Your task to perform on an android device: turn on the 24-hour format for clock Image 0: 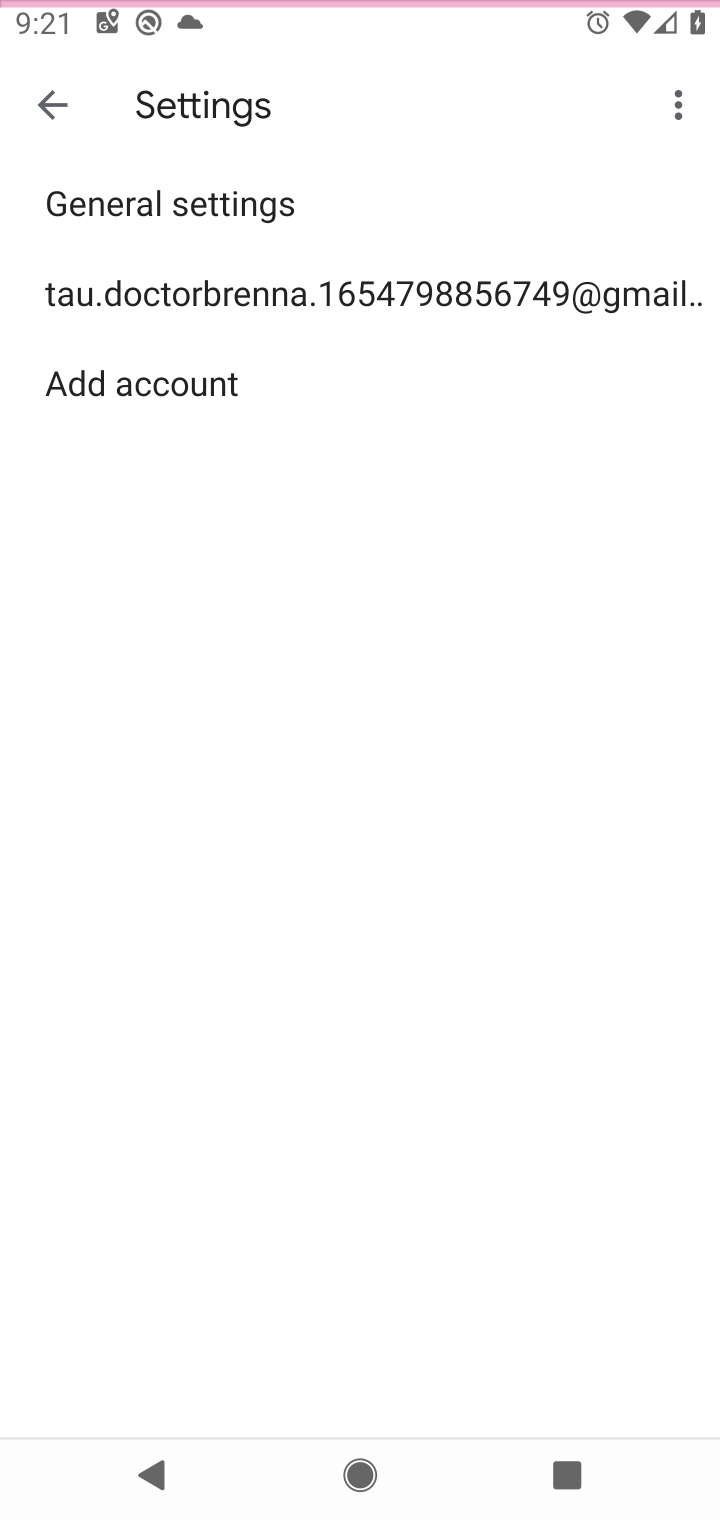
Step 0: drag from (66, 1465) to (259, 759)
Your task to perform on an android device: turn on the 24-hour format for clock Image 1: 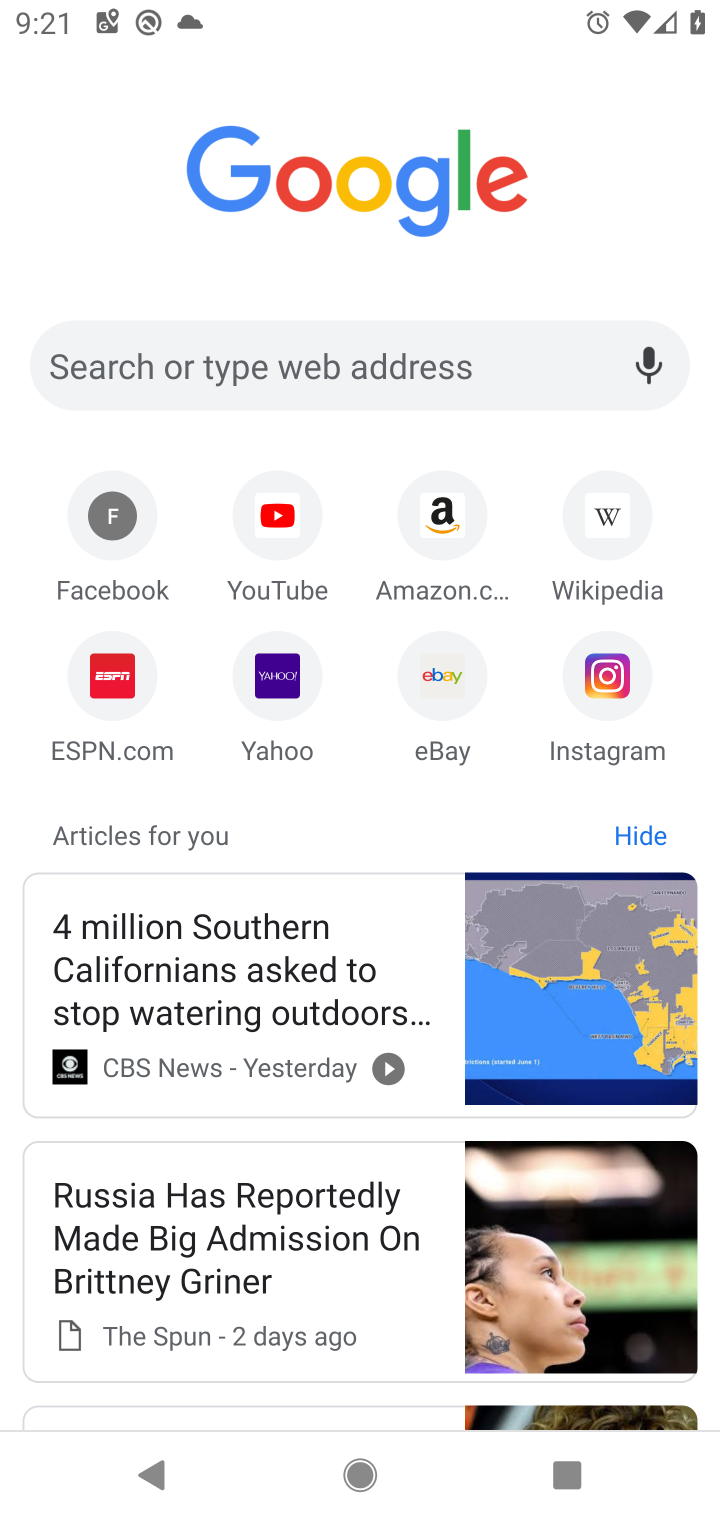
Step 1: press home button
Your task to perform on an android device: turn on the 24-hour format for clock Image 2: 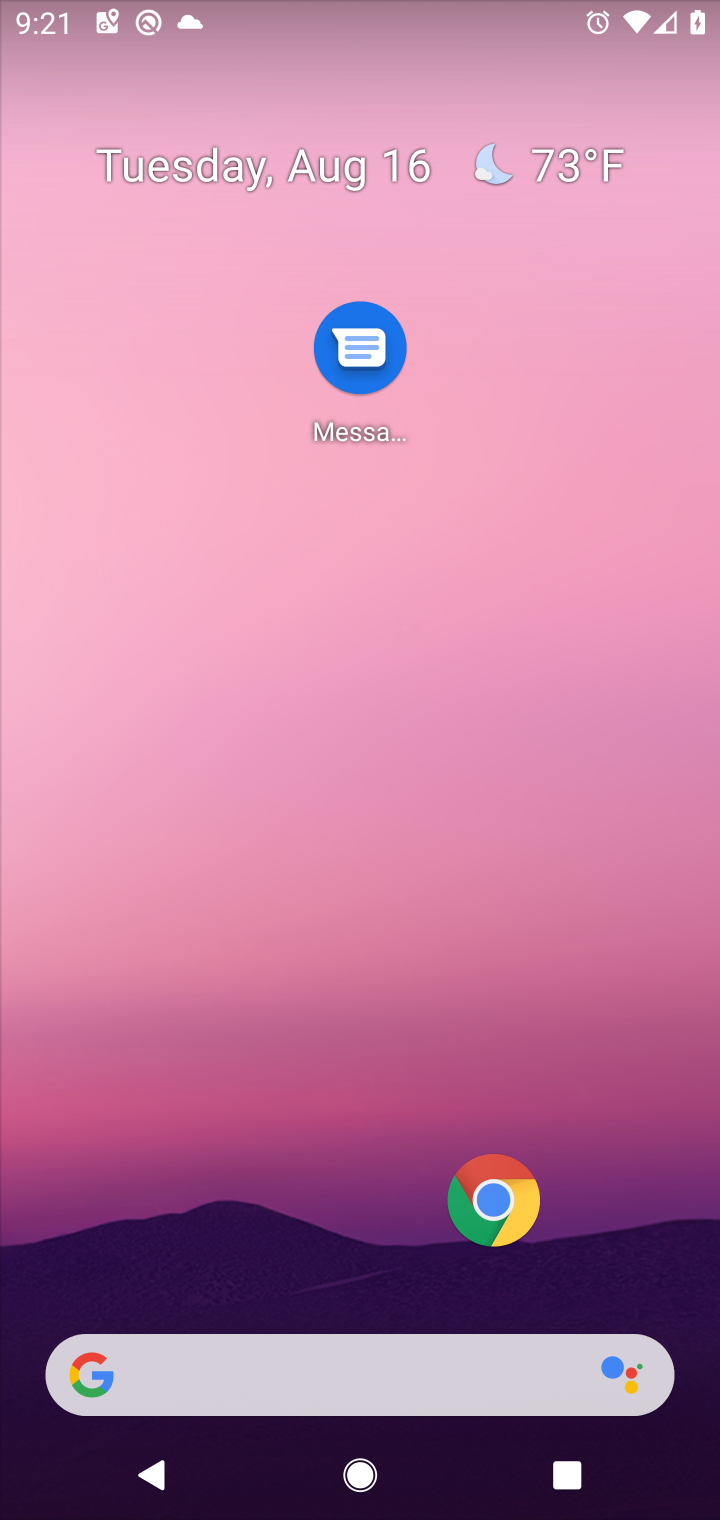
Step 2: drag from (79, 1422) to (456, 149)
Your task to perform on an android device: turn on the 24-hour format for clock Image 3: 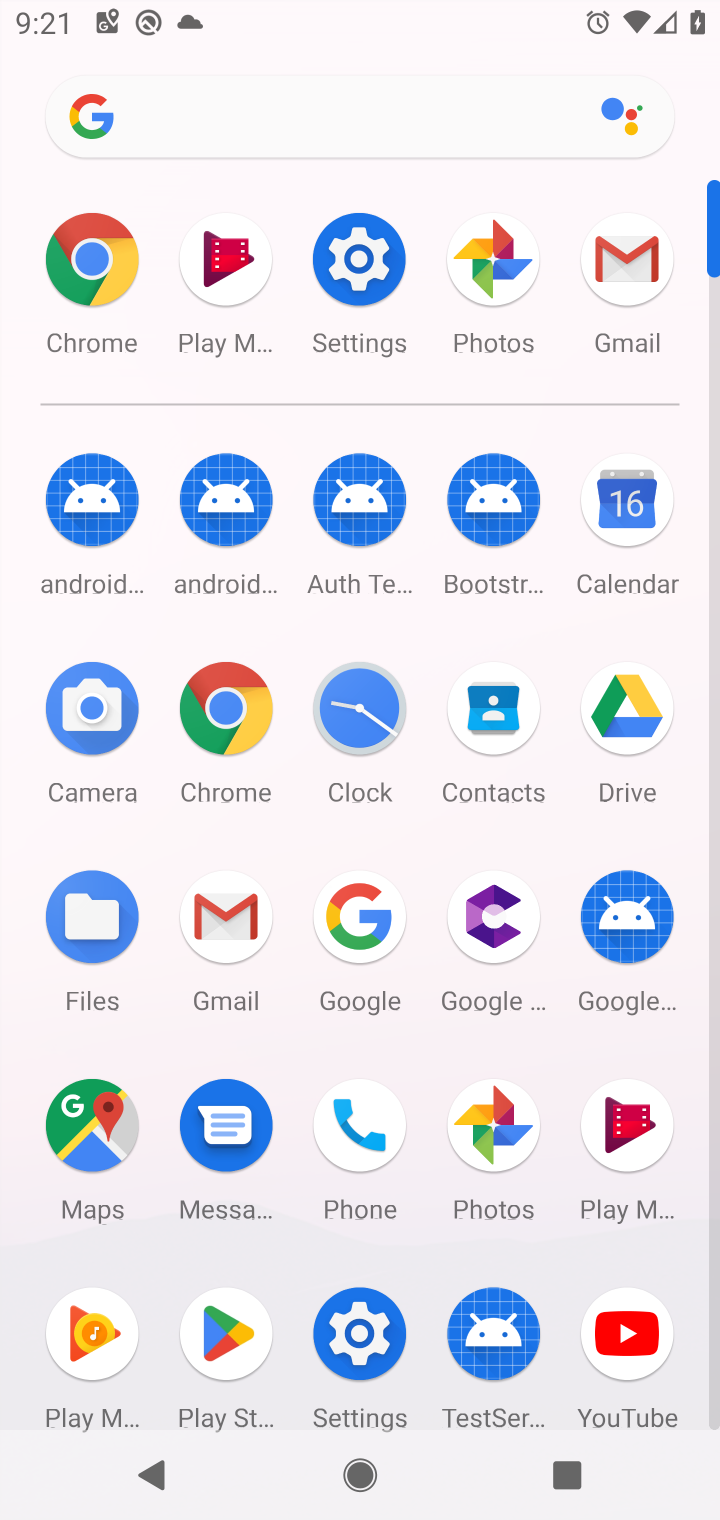
Step 3: click (381, 736)
Your task to perform on an android device: turn on the 24-hour format for clock Image 4: 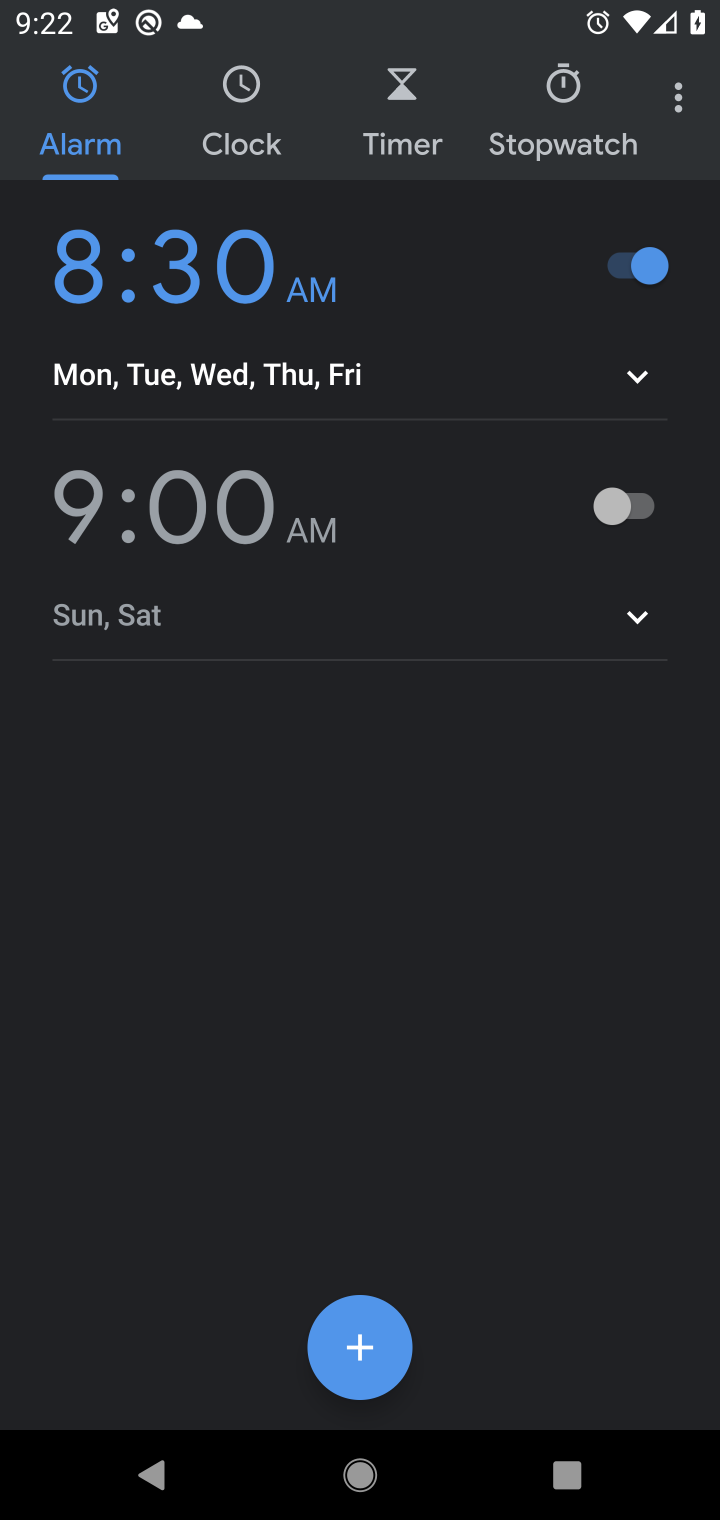
Step 4: click (688, 106)
Your task to perform on an android device: turn on the 24-hour format for clock Image 5: 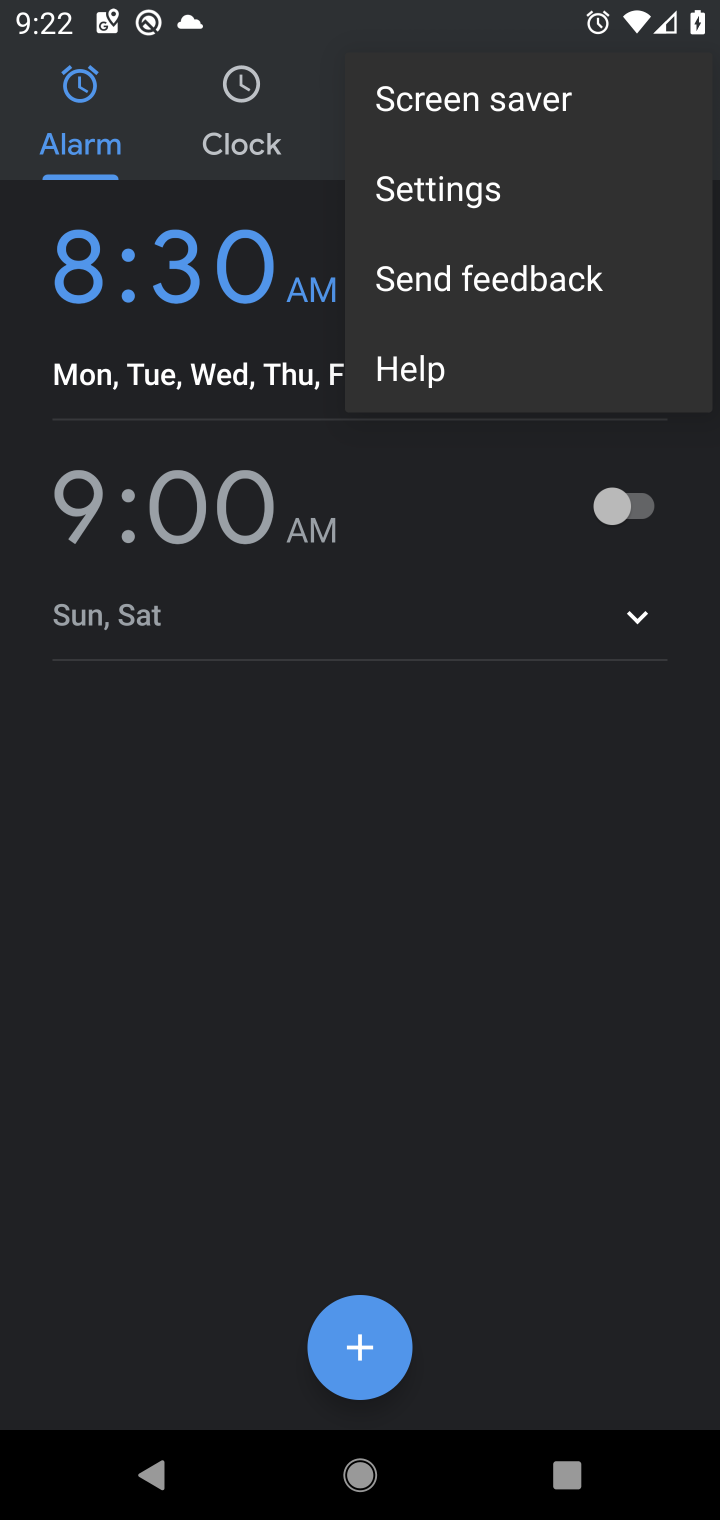
Step 5: click (423, 194)
Your task to perform on an android device: turn on the 24-hour format for clock Image 6: 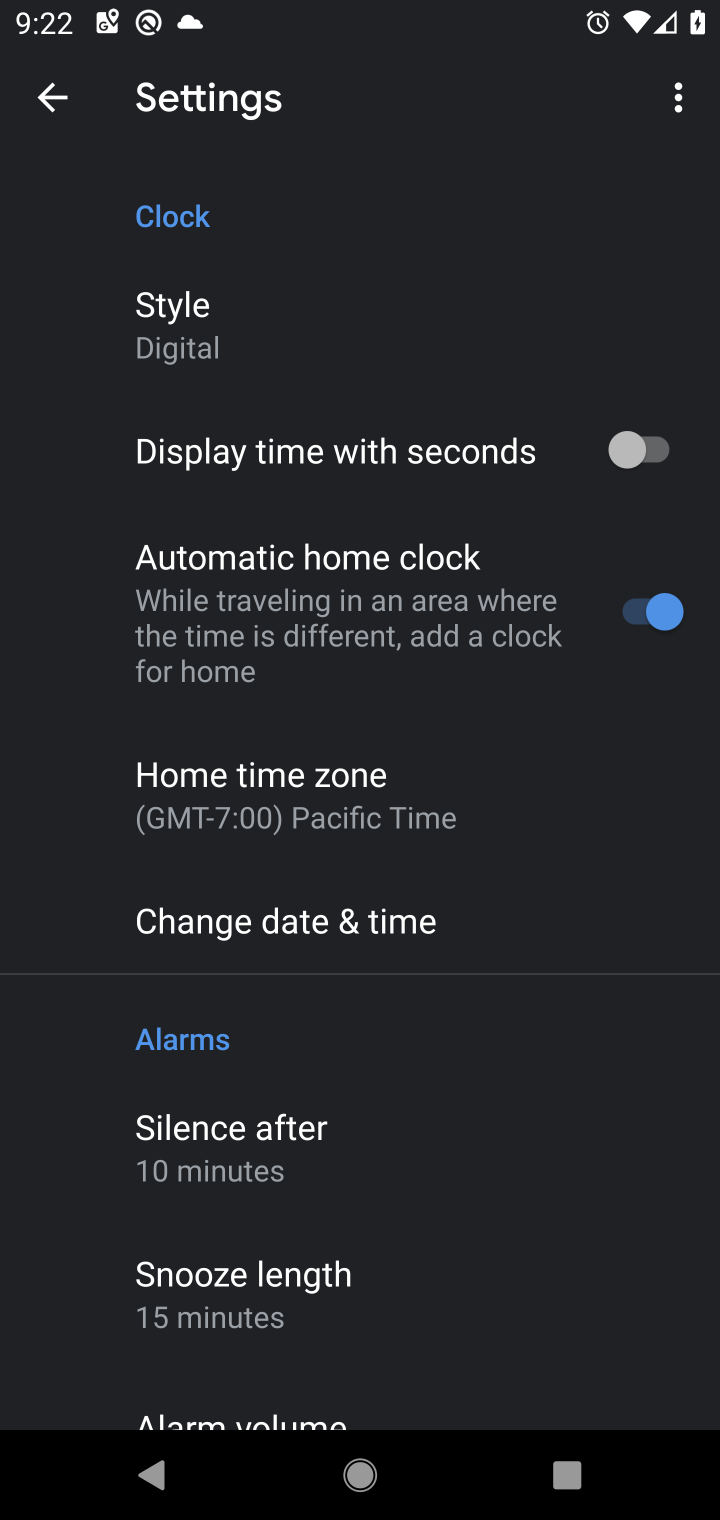
Step 6: drag from (446, 1334) to (454, 587)
Your task to perform on an android device: turn on the 24-hour format for clock Image 7: 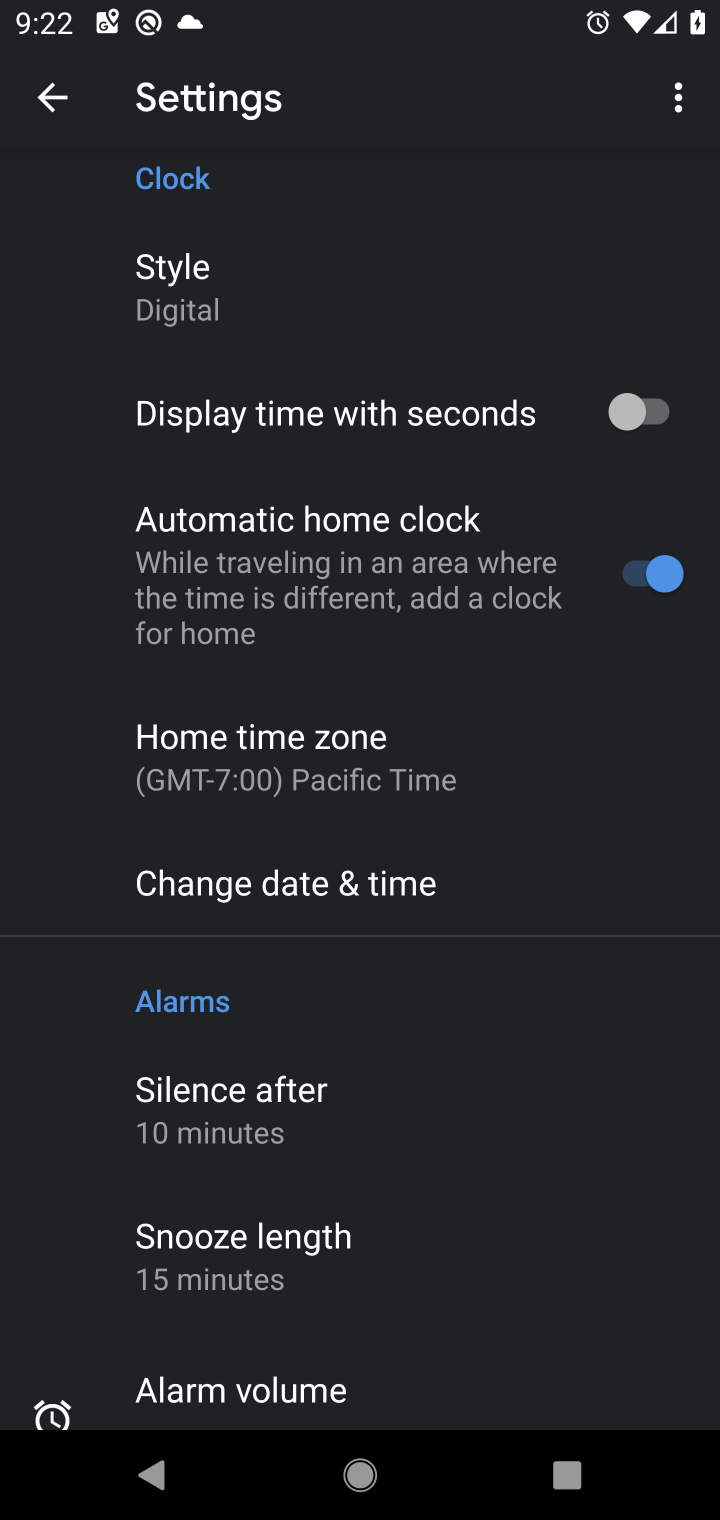
Step 7: drag from (450, 1292) to (670, 616)
Your task to perform on an android device: turn on the 24-hour format for clock Image 8: 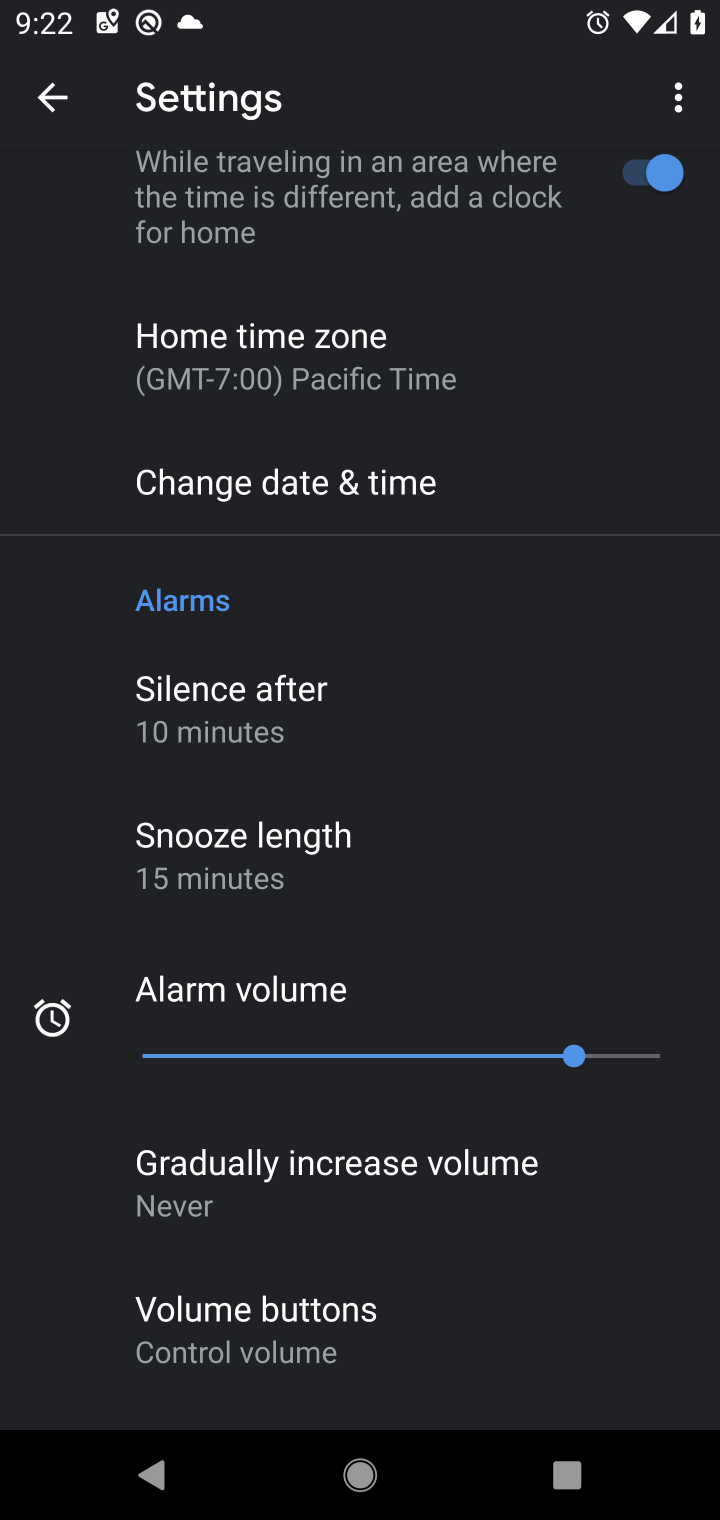
Step 8: drag from (539, 1343) to (623, 426)
Your task to perform on an android device: turn on the 24-hour format for clock Image 9: 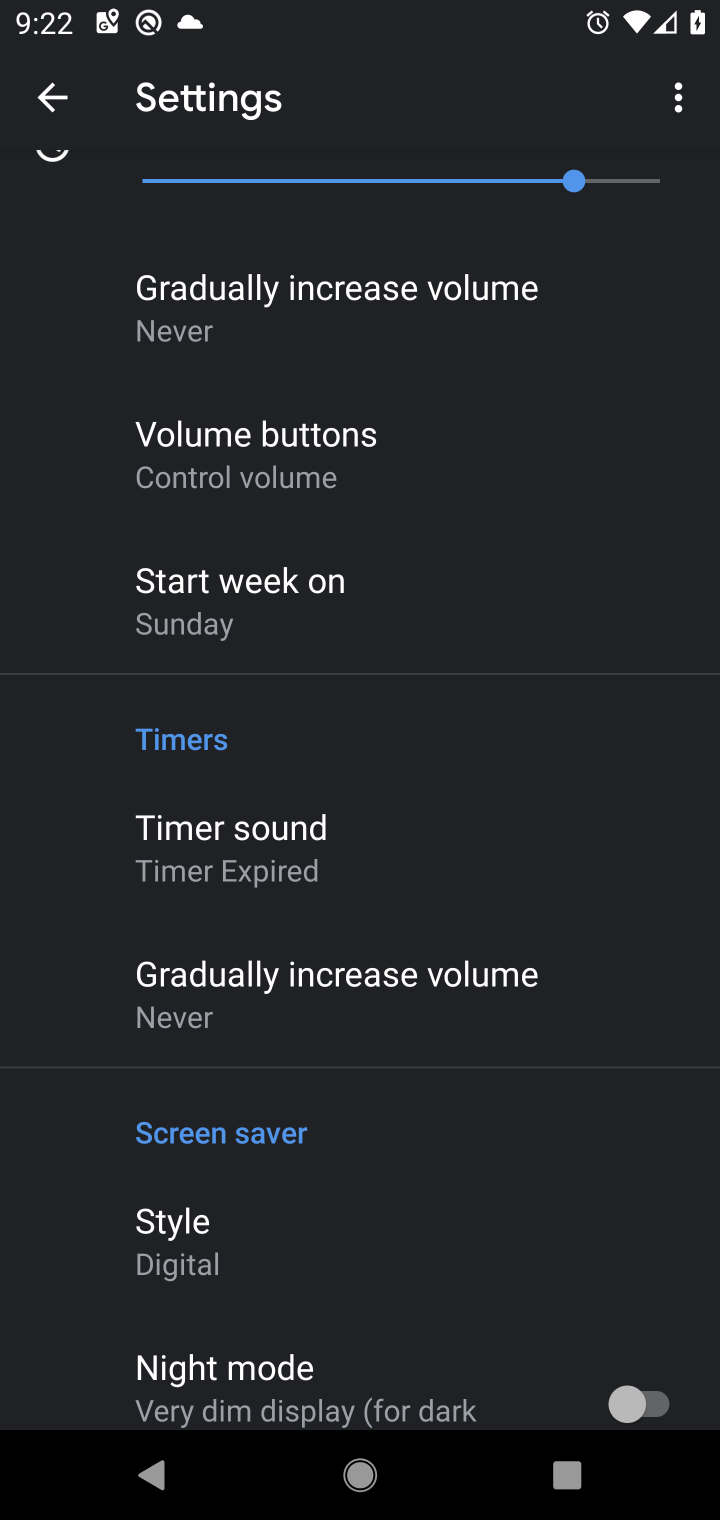
Step 9: drag from (458, 1195) to (516, 598)
Your task to perform on an android device: turn on the 24-hour format for clock Image 10: 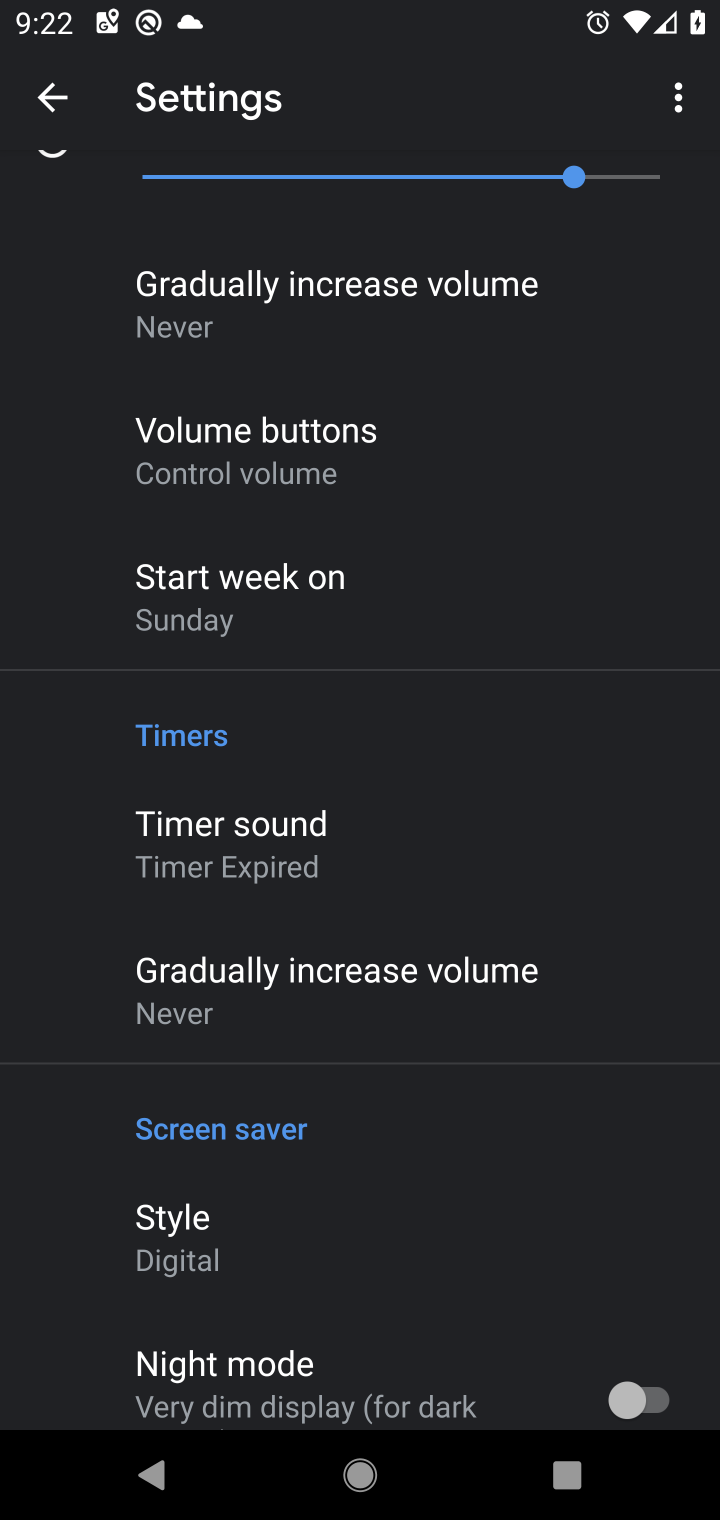
Step 10: drag from (635, 1263) to (660, 327)
Your task to perform on an android device: turn on the 24-hour format for clock Image 11: 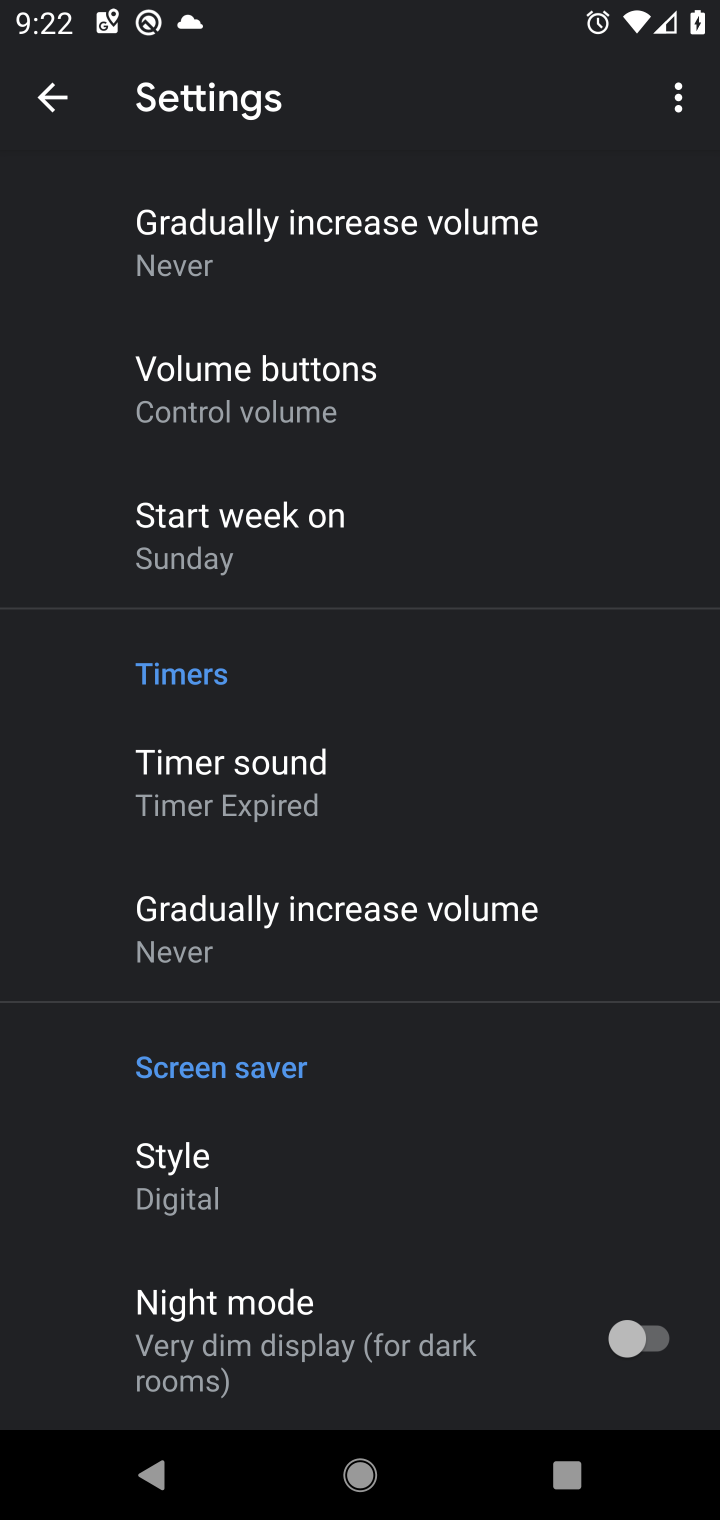
Step 11: drag from (595, 1166) to (595, 339)
Your task to perform on an android device: turn on the 24-hour format for clock Image 12: 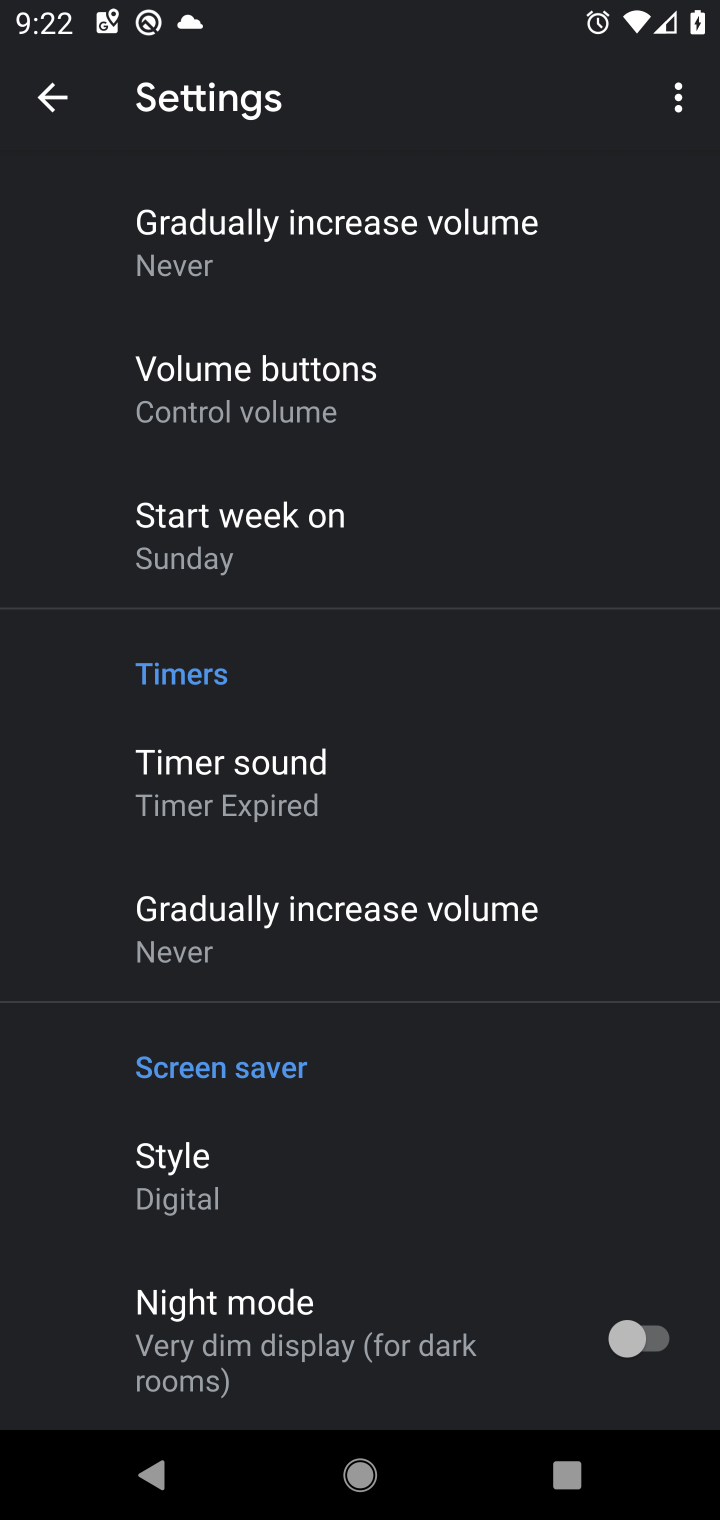
Step 12: click (44, 1356)
Your task to perform on an android device: turn on the 24-hour format for clock Image 13: 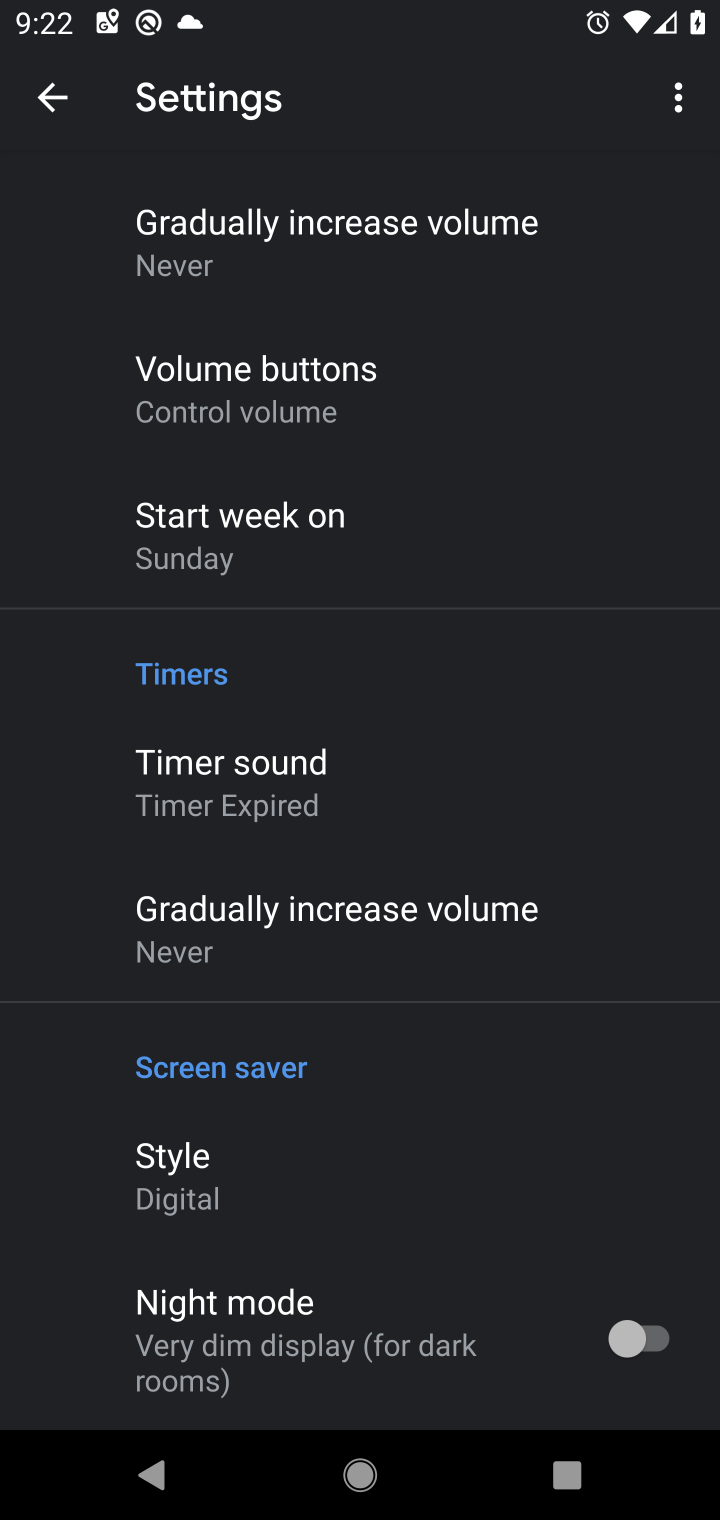
Step 13: drag from (44, 1356) to (111, 475)
Your task to perform on an android device: turn on the 24-hour format for clock Image 14: 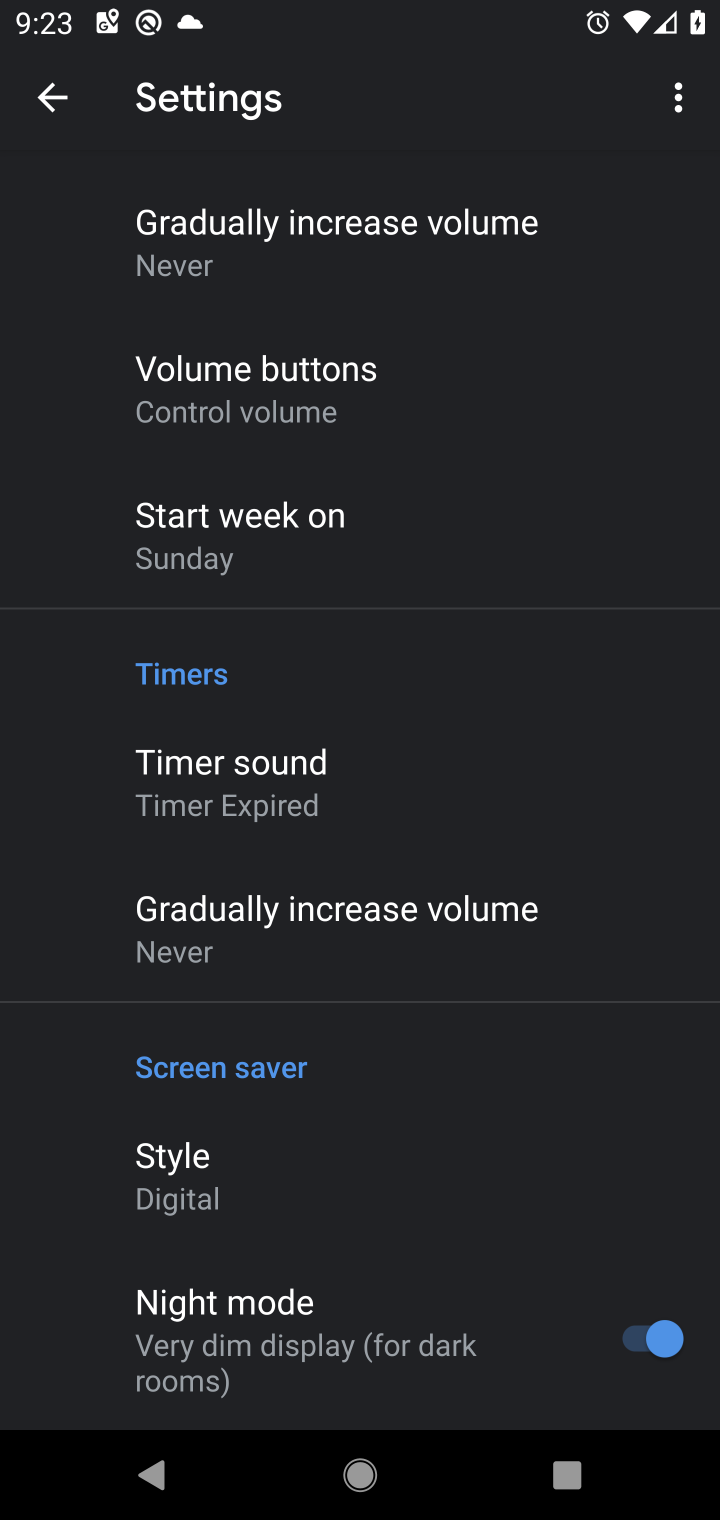
Step 14: drag from (597, 381) to (615, 1167)
Your task to perform on an android device: turn on the 24-hour format for clock Image 15: 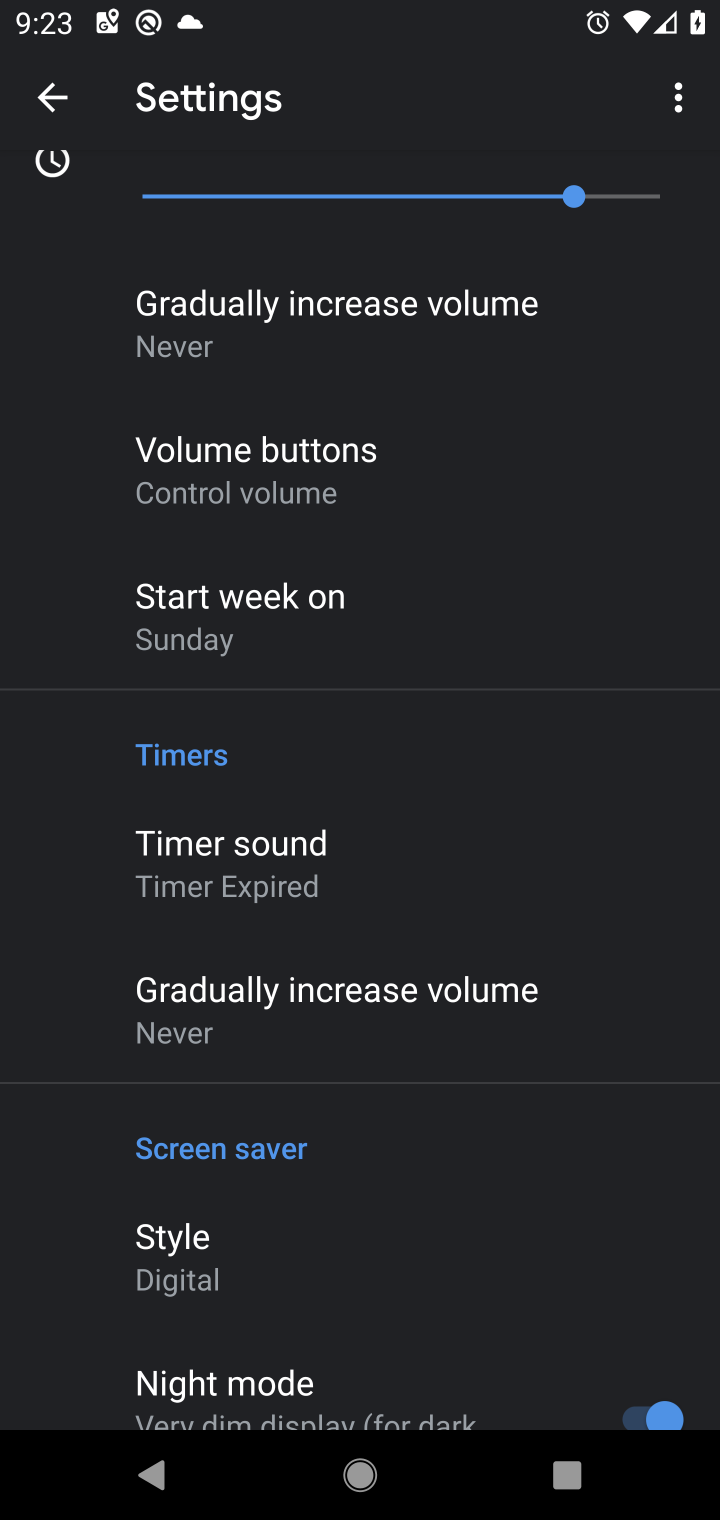
Step 15: drag from (581, 446) to (597, 1196)
Your task to perform on an android device: turn on the 24-hour format for clock Image 16: 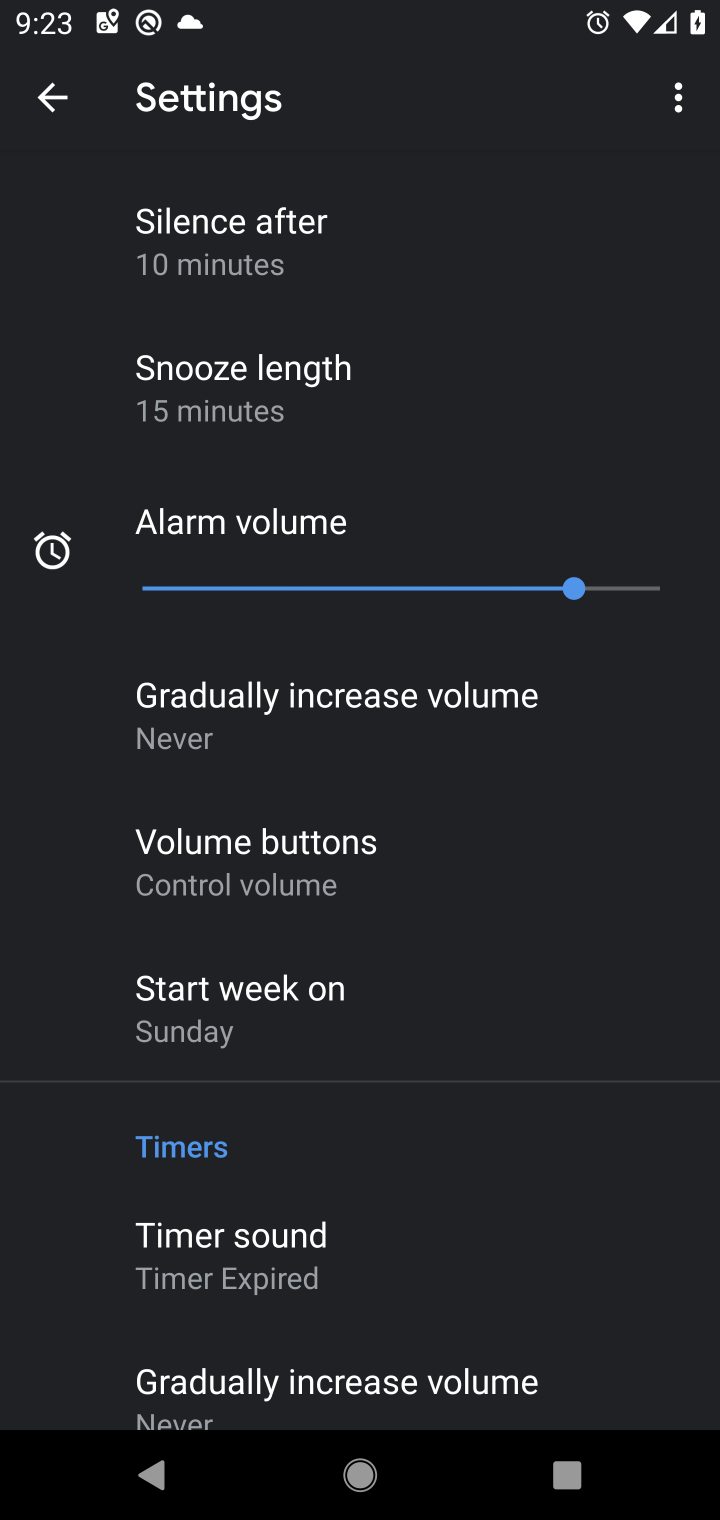
Step 16: drag from (544, 257) to (628, 845)
Your task to perform on an android device: turn on the 24-hour format for clock Image 17: 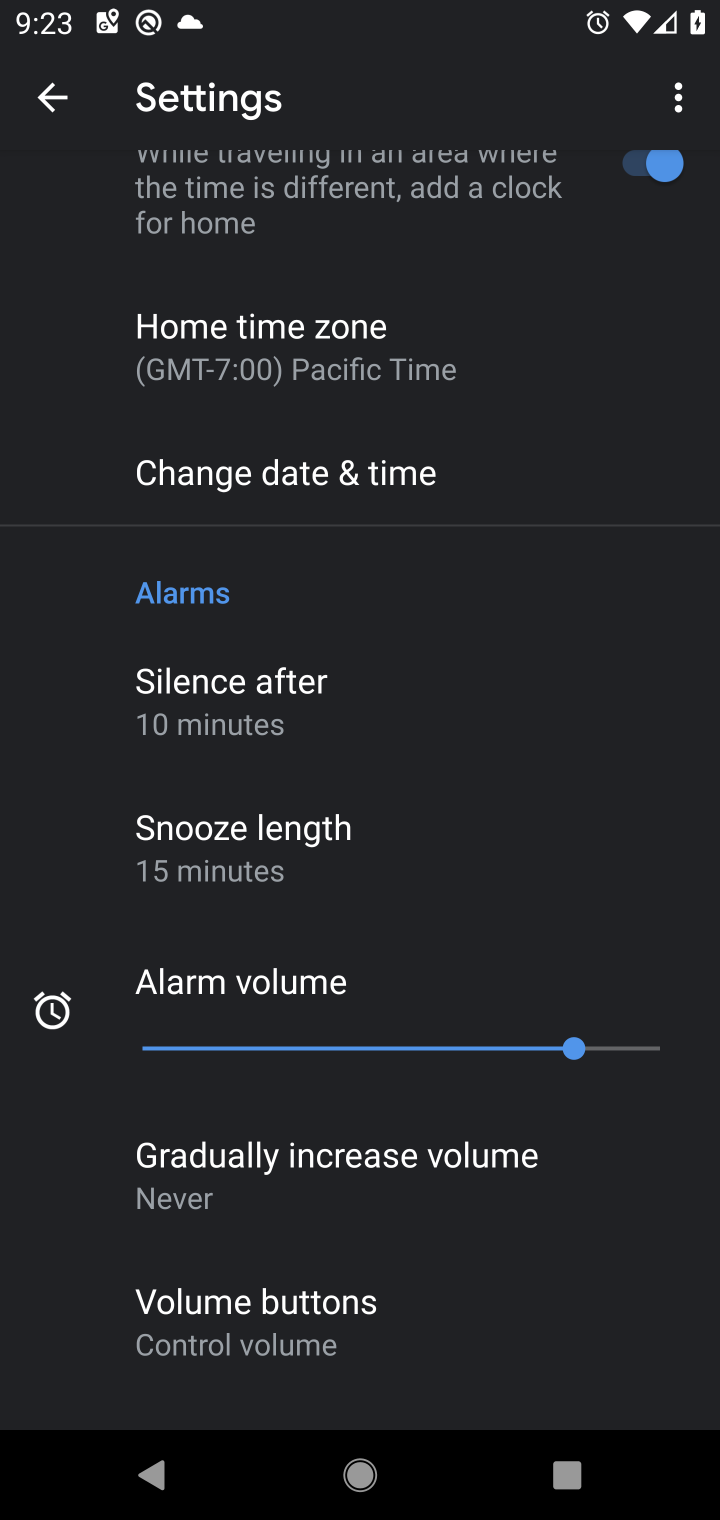
Step 17: click (310, 477)
Your task to perform on an android device: turn on the 24-hour format for clock Image 18: 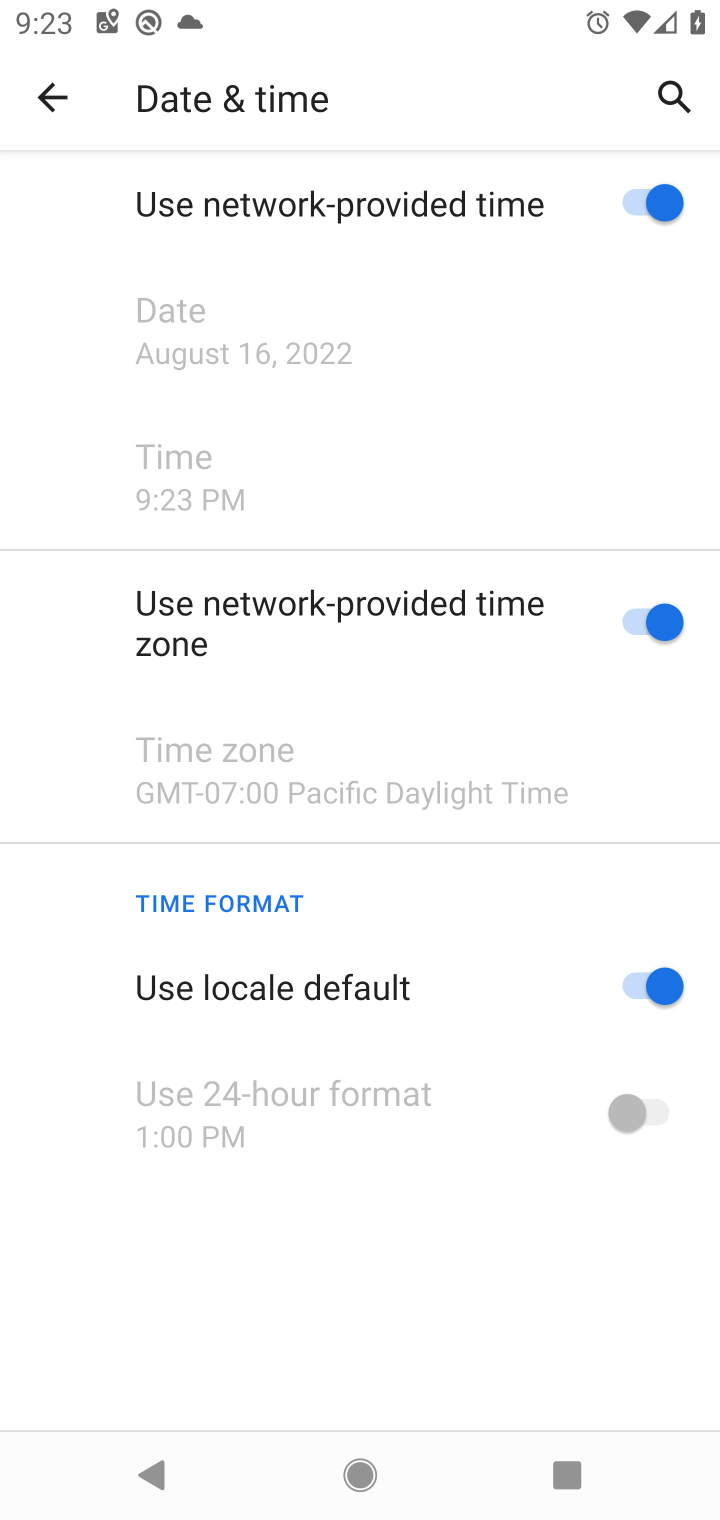
Step 18: click (643, 996)
Your task to perform on an android device: turn on the 24-hour format for clock Image 19: 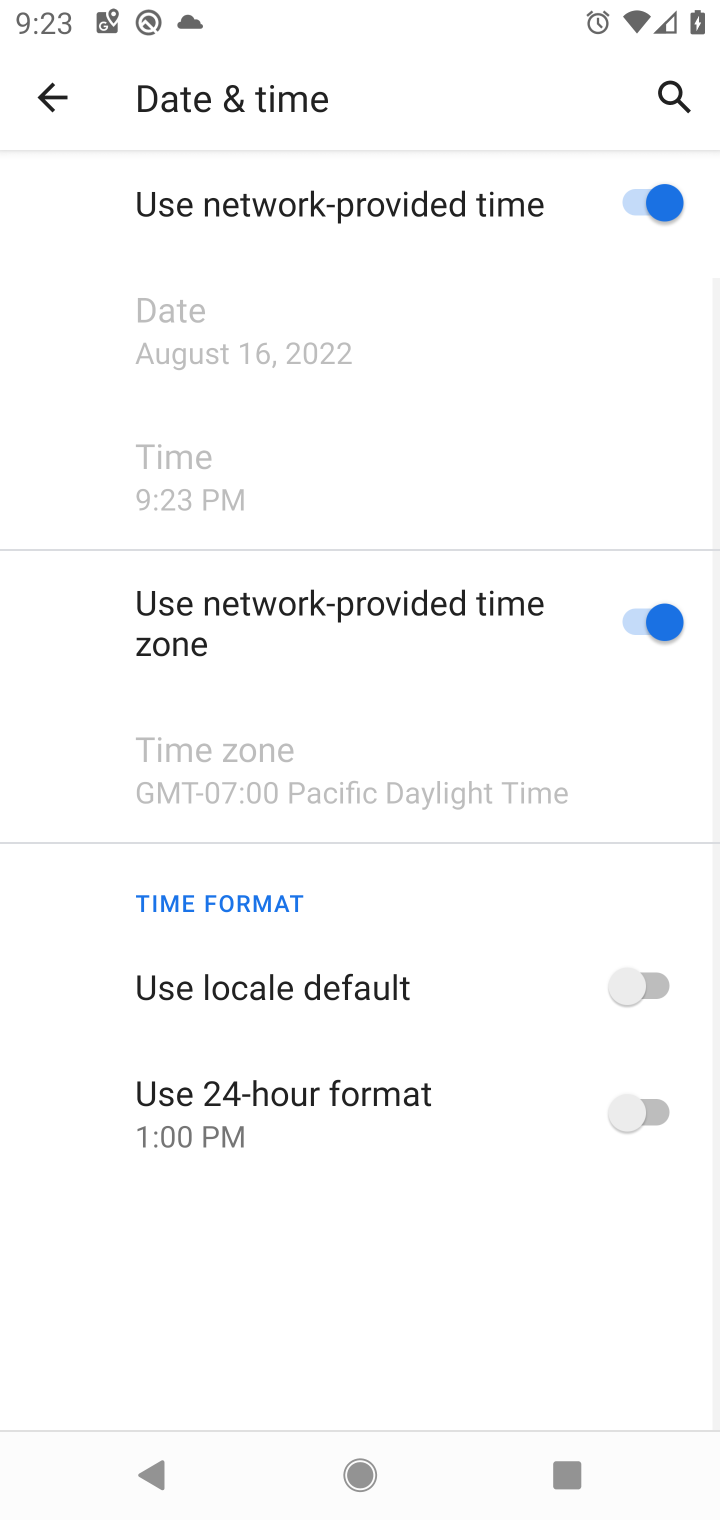
Step 19: click (636, 1105)
Your task to perform on an android device: turn on the 24-hour format for clock Image 20: 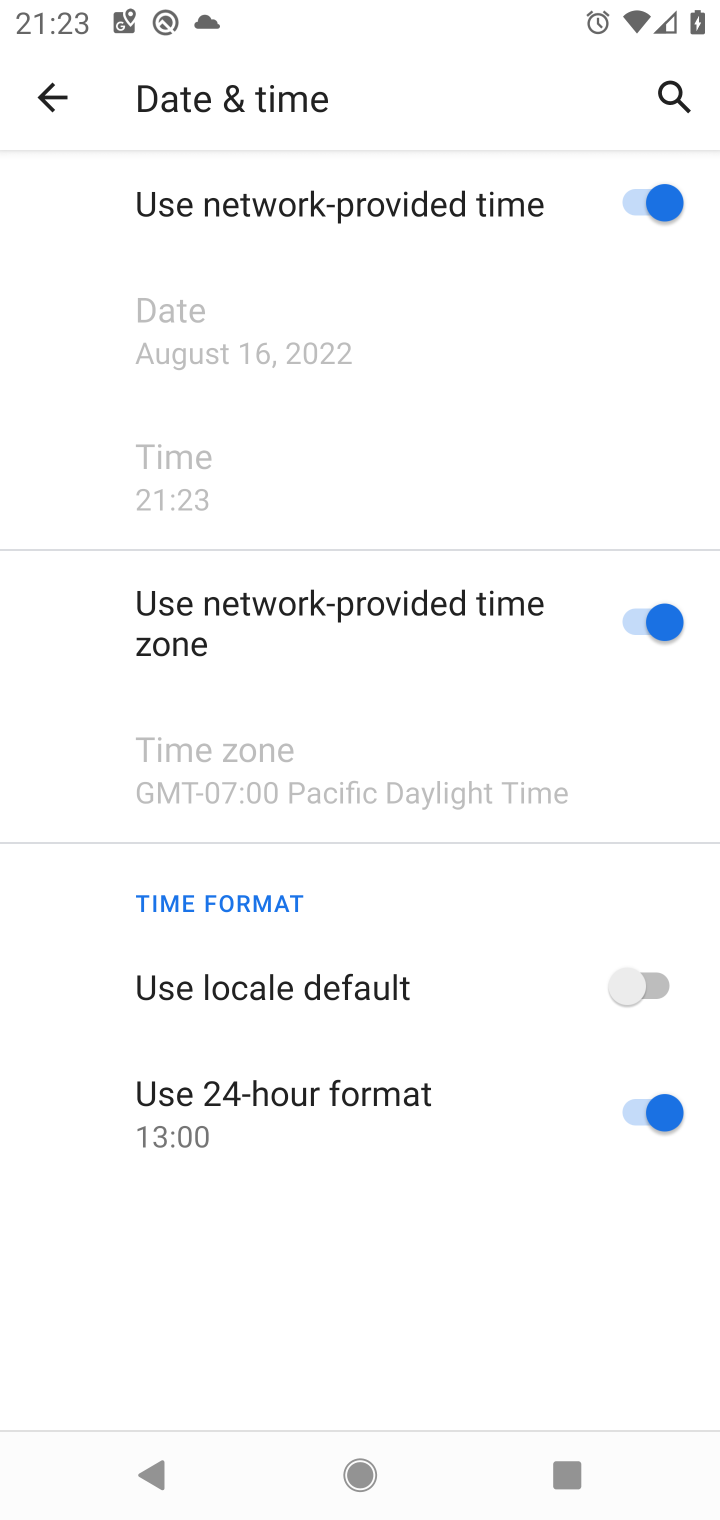
Step 20: task complete